Your task to perform on an android device: Open Maps and search for coffee Image 0: 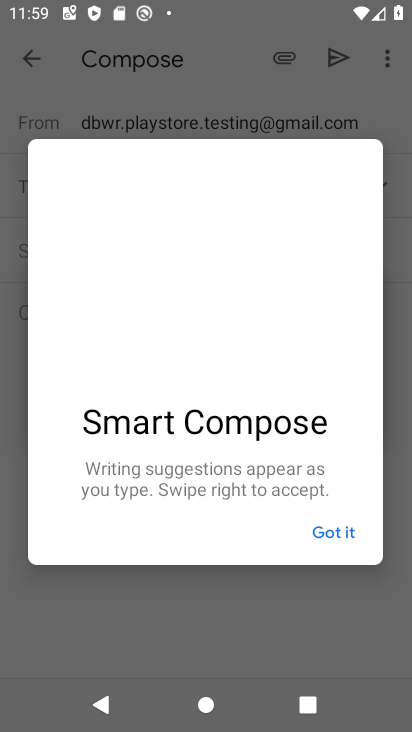
Step 0: press home button
Your task to perform on an android device: Open Maps and search for coffee Image 1: 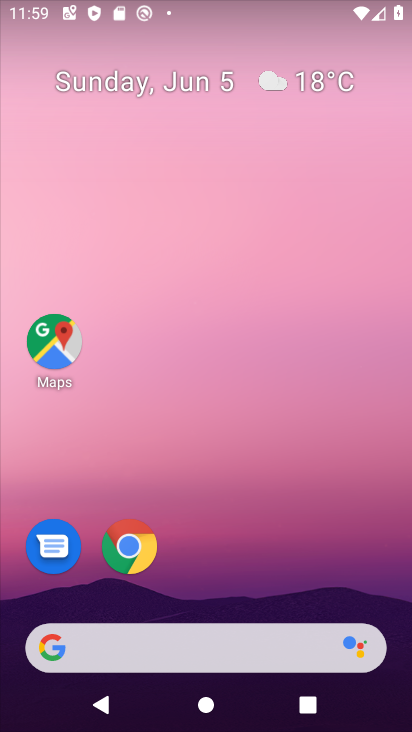
Step 1: click (55, 336)
Your task to perform on an android device: Open Maps and search for coffee Image 2: 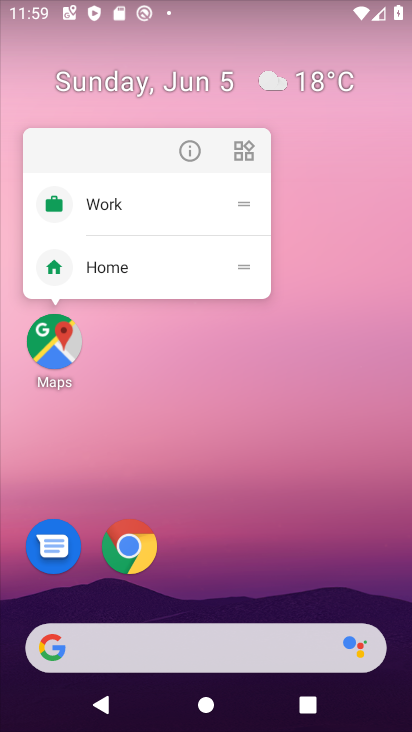
Step 2: click (55, 348)
Your task to perform on an android device: Open Maps and search for coffee Image 3: 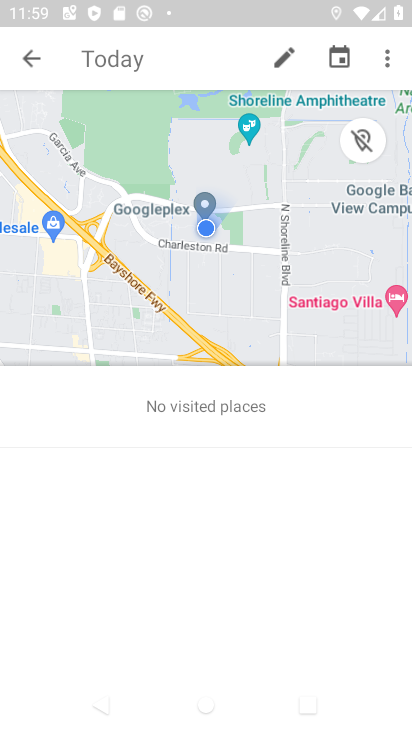
Step 3: click (30, 61)
Your task to perform on an android device: Open Maps and search for coffee Image 4: 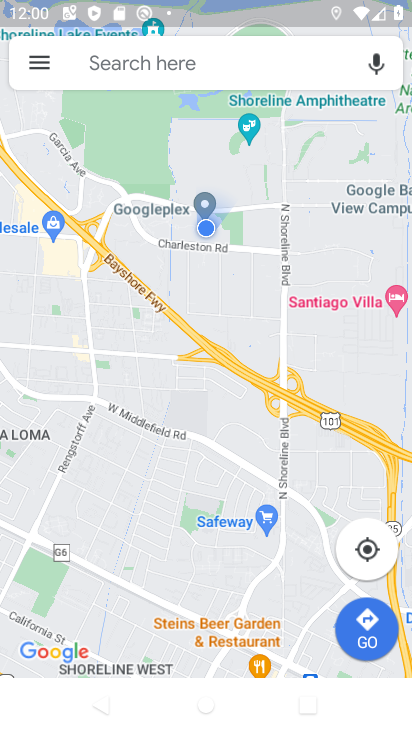
Step 4: click (205, 60)
Your task to perform on an android device: Open Maps and search for coffee Image 5: 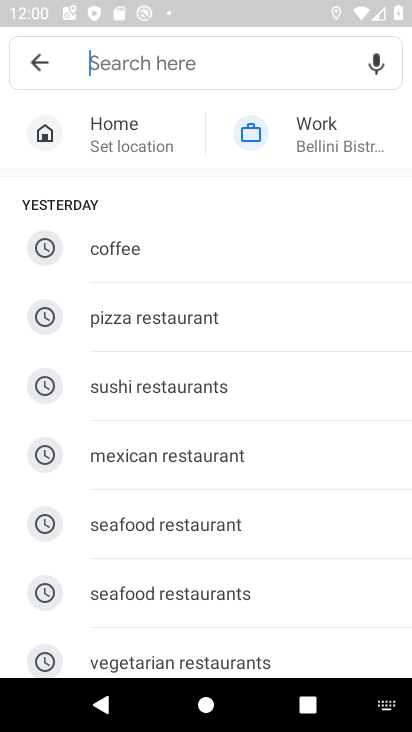
Step 5: click (128, 248)
Your task to perform on an android device: Open Maps and search for coffee Image 6: 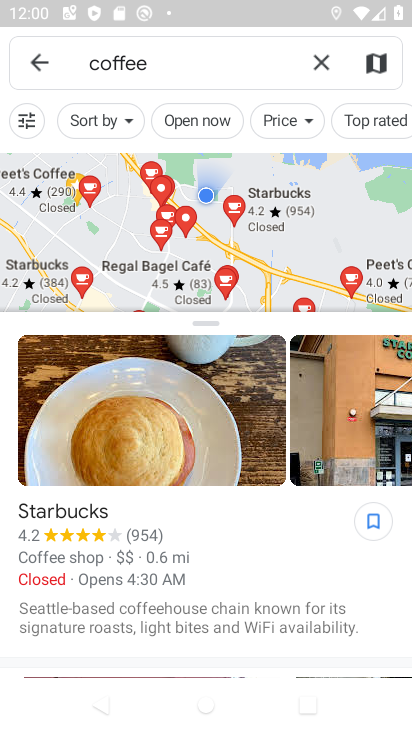
Step 6: task complete